Your task to perform on an android device: add a label to a message in the gmail app Image 0: 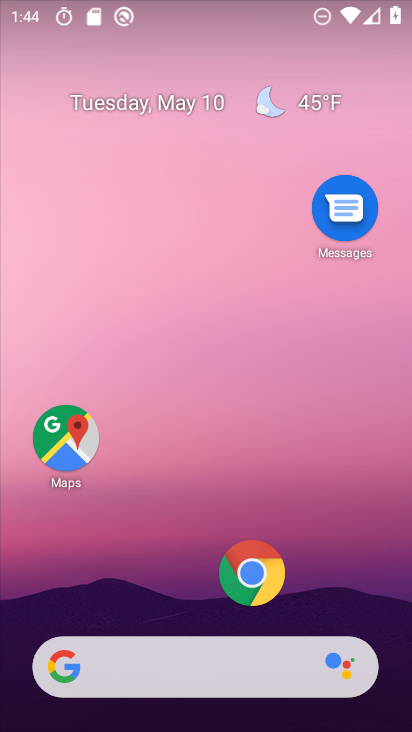
Step 0: drag from (194, 590) to (238, 146)
Your task to perform on an android device: add a label to a message in the gmail app Image 1: 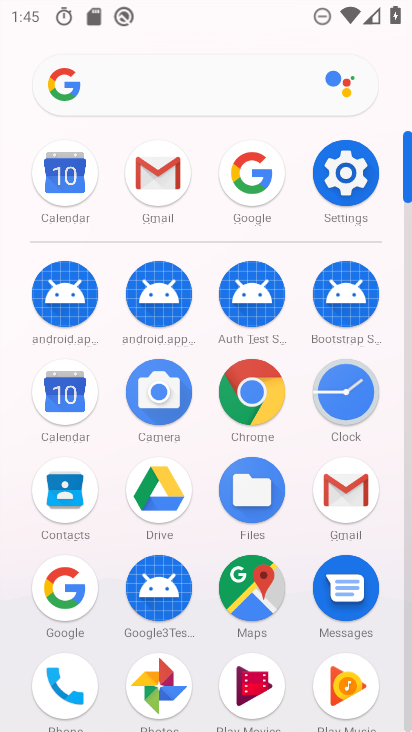
Step 1: click (323, 505)
Your task to perform on an android device: add a label to a message in the gmail app Image 2: 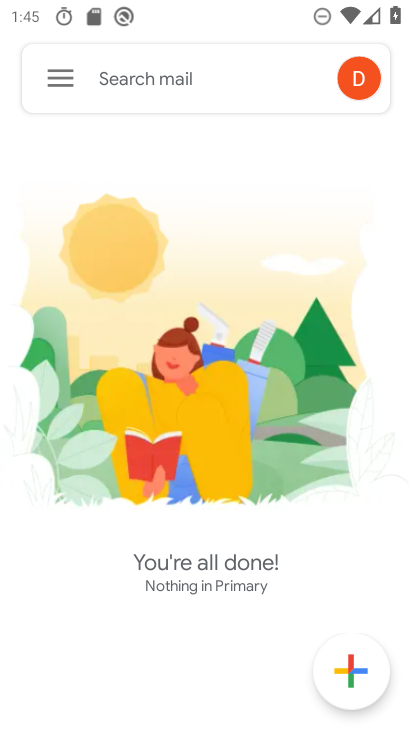
Step 2: drag from (219, 615) to (280, 357)
Your task to perform on an android device: add a label to a message in the gmail app Image 3: 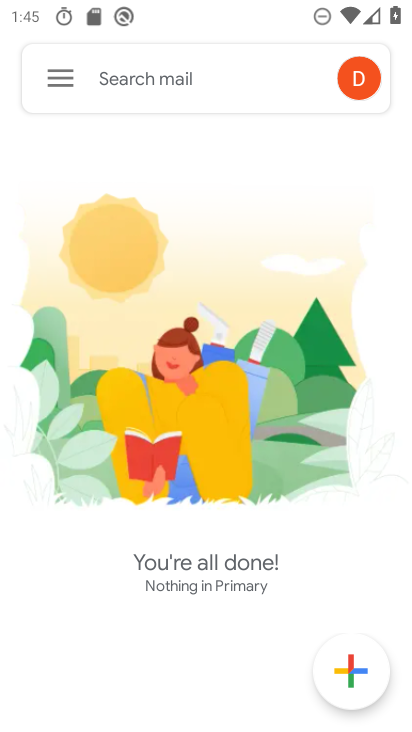
Step 3: click (59, 84)
Your task to perform on an android device: add a label to a message in the gmail app Image 4: 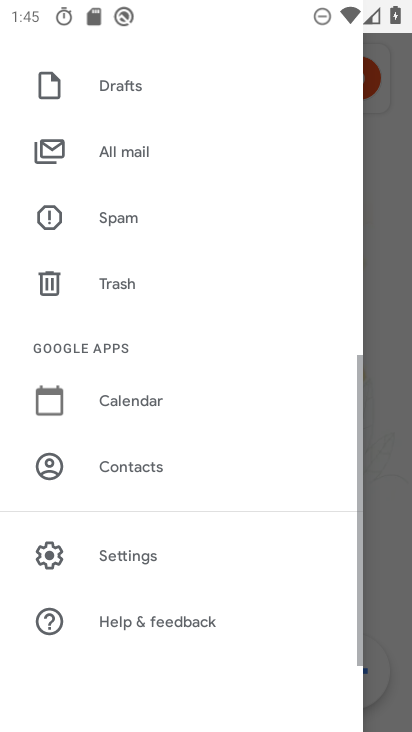
Step 4: click (189, 124)
Your task to perform on an android device: add a label to a message in the gmail app Image 5: 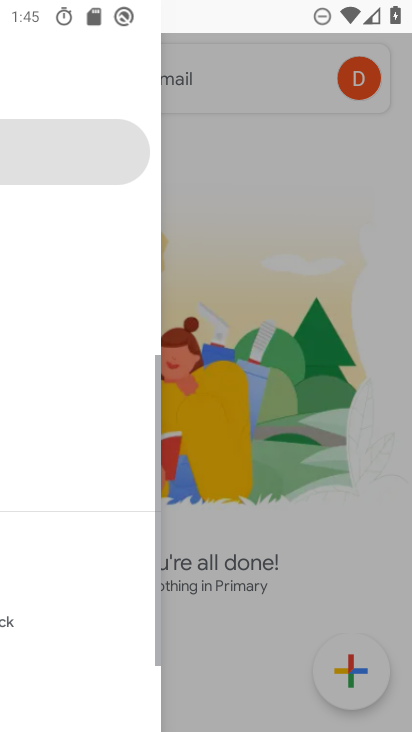
Step 5: click (169, 135)
Your task to perform on an android device: add a label to a message in the gmail app Image 6: 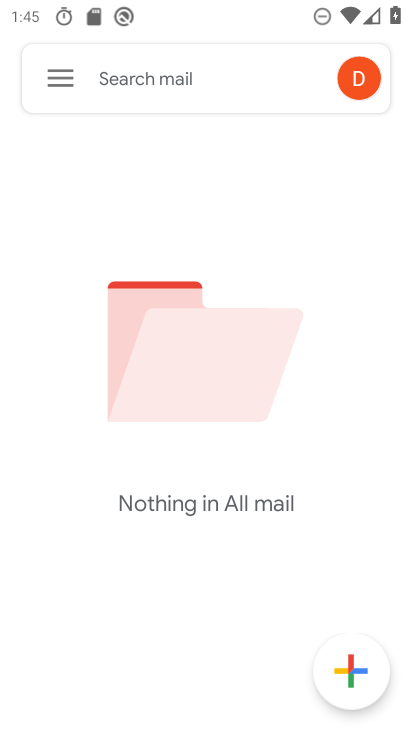
Step 6: task complete